Your task to perform on an android device: allow cookies in the chrome app Image 0: 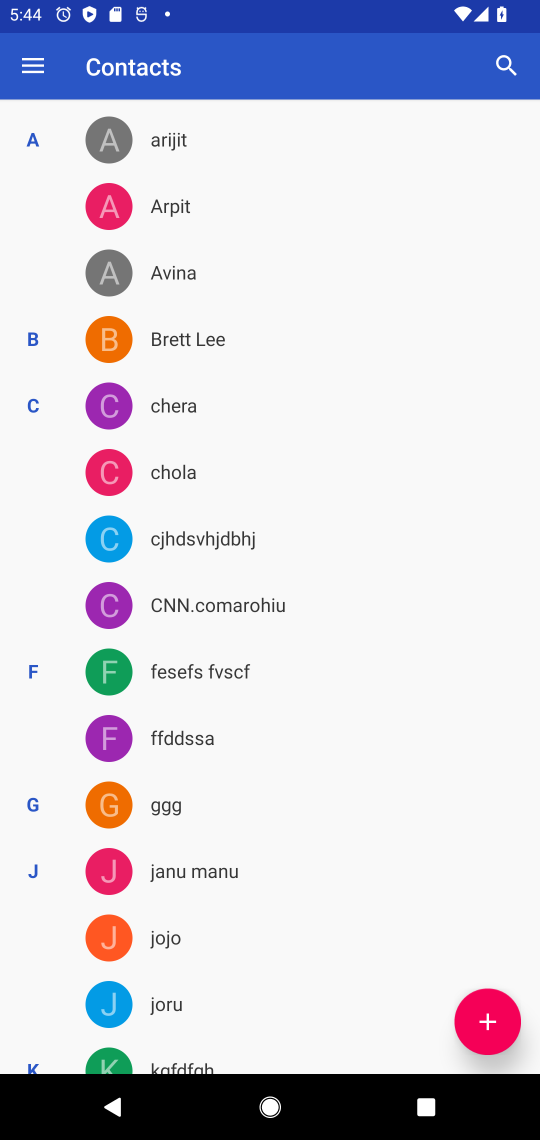
Step 0: press home button
Your task to perform on an android device: allow cookies in the chrome app Image 1: 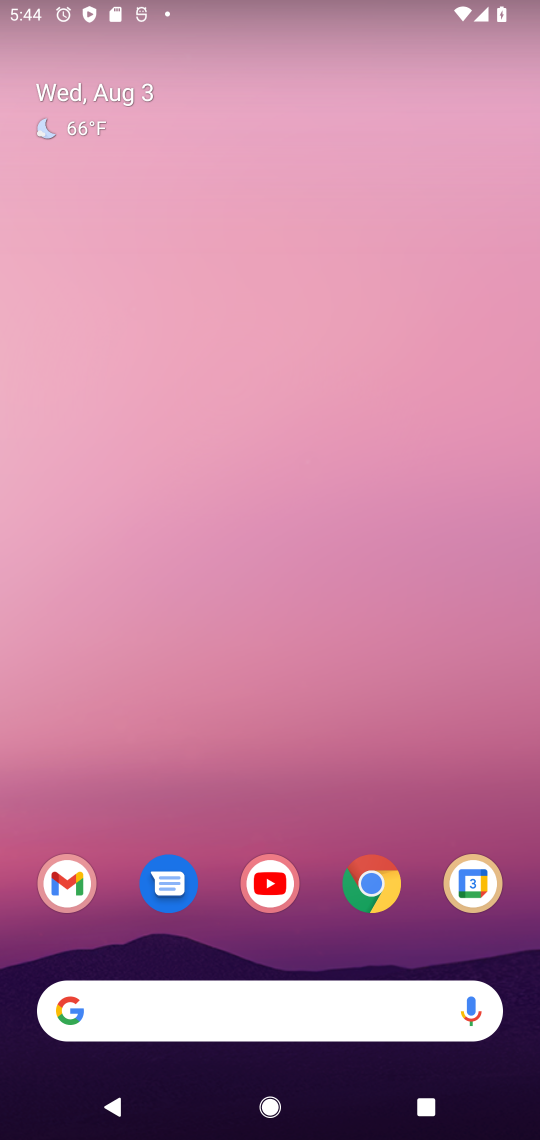
Step 1: click (375, 881)
Your task to perform on an android device: allow cookies in the chrome app Image 2: 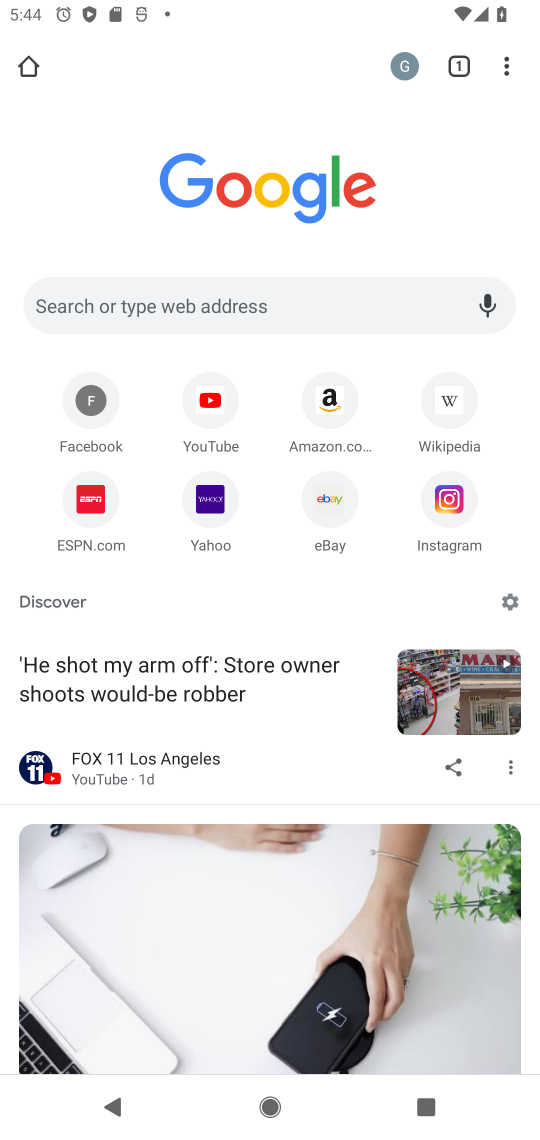
Step 2: click (505, 70)
Your task to perform on an android device: allow cookies in the chrome app Image 3: 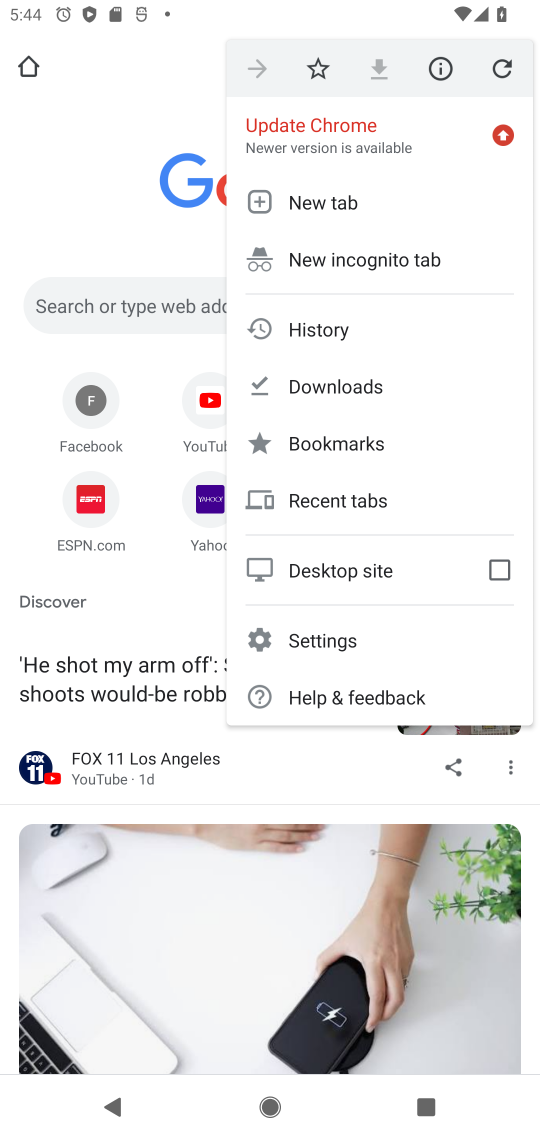
Step 3: click (296, 652)
Your task to perform on an android device: allow cookies in the chrome app Image 4: 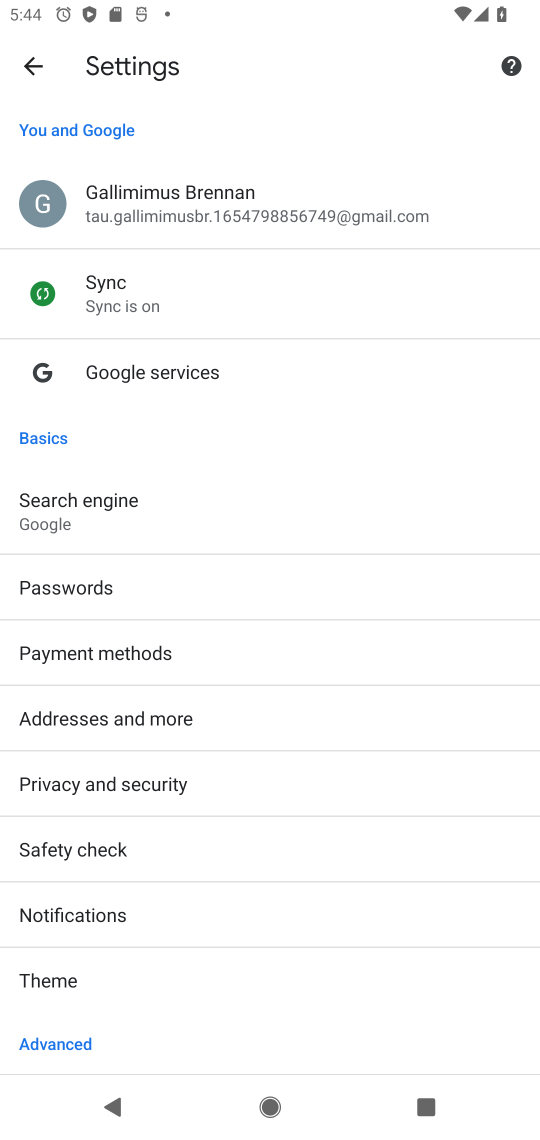
Step 4: drag from (76, 972) to (111, 317)
Your task to perform on an android device: allow cookies in the chrome app Image 5: 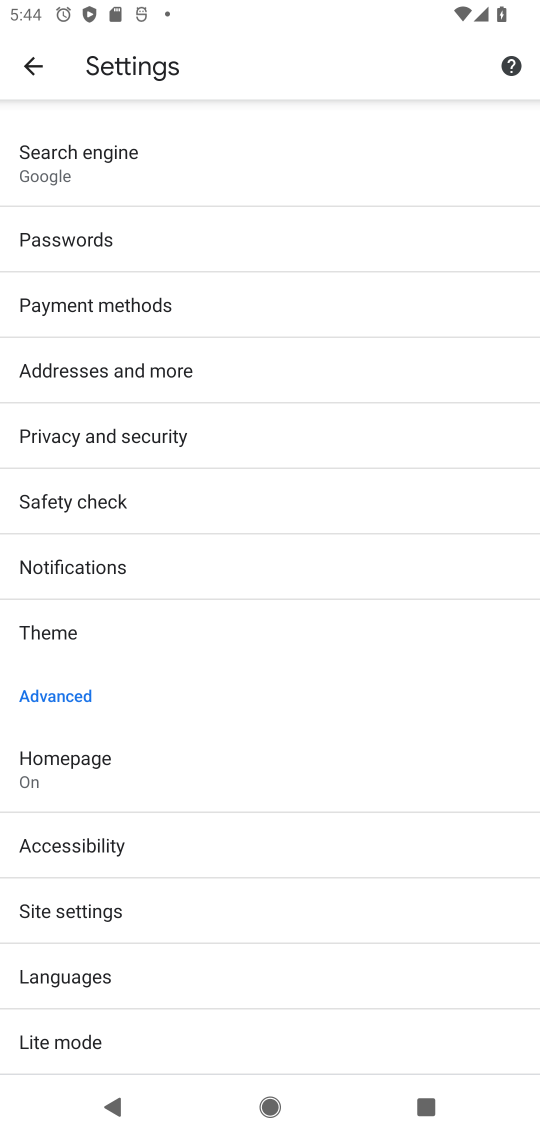
Step 5: click (27, 912)
Your task to perform on an android device: allow cookies in the chrome app Image 6: 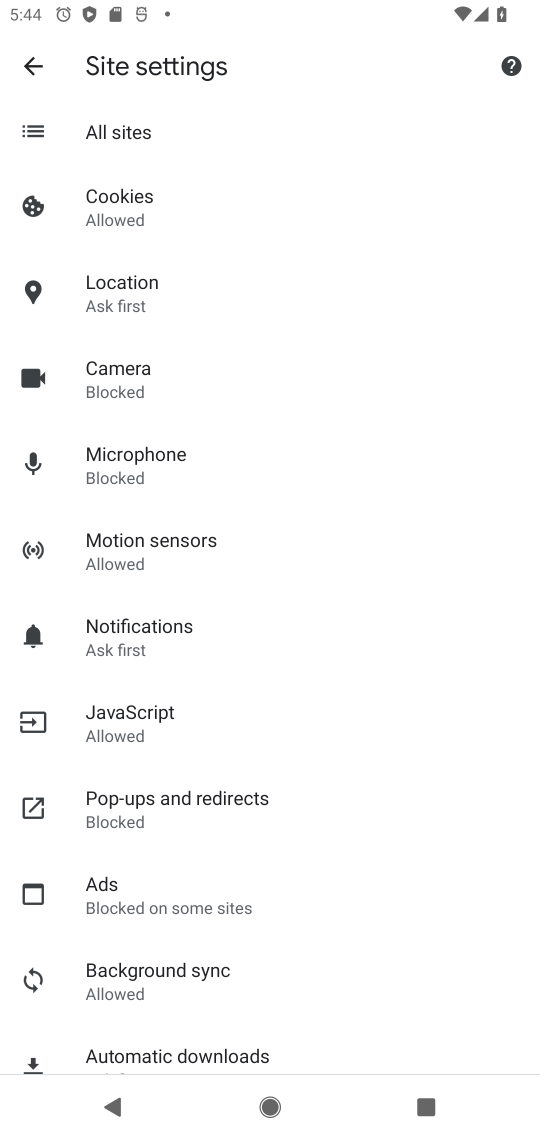
Step 6: click (146, 208)
Your task to perform on an android device: allow cookies in the chrome app Image 7: 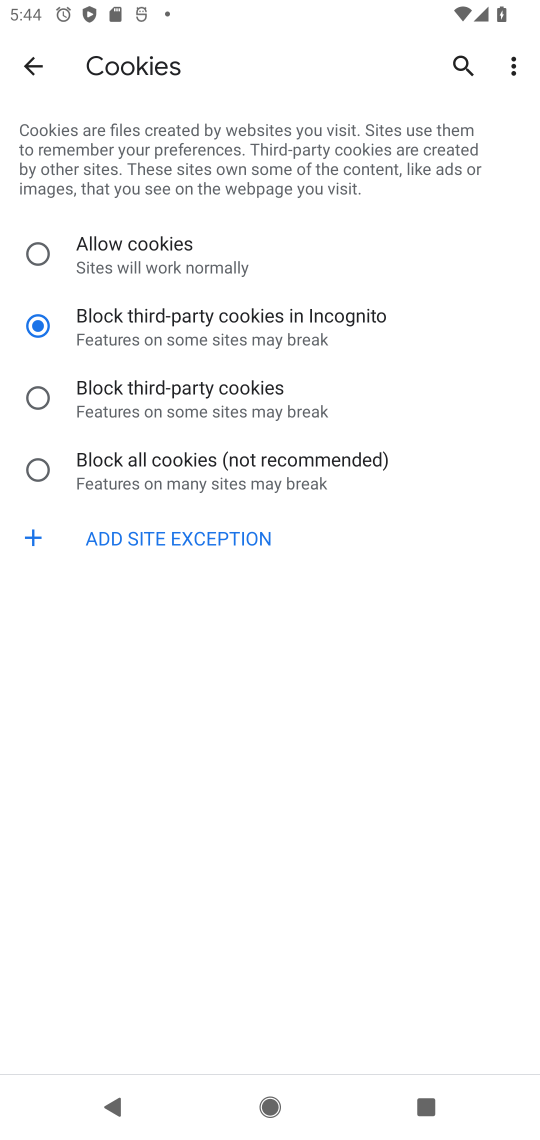
Step 7: click (93, 260)
Your task to perform on an android device: allow cookies in the chrome app Image 8: 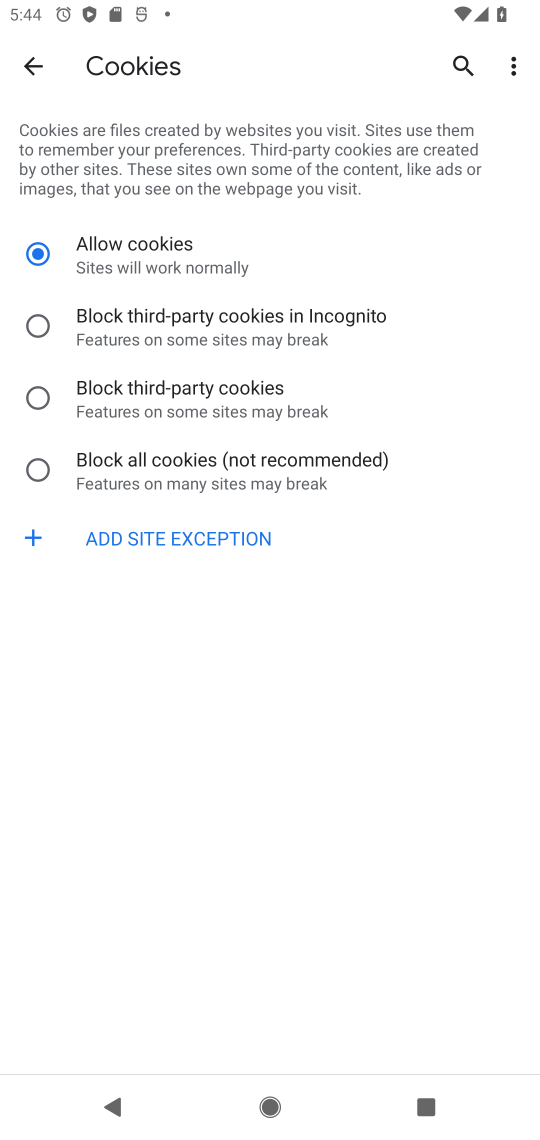
Step 8: task complete